Your task to perform on an android device: set the stopwatch Image 0: 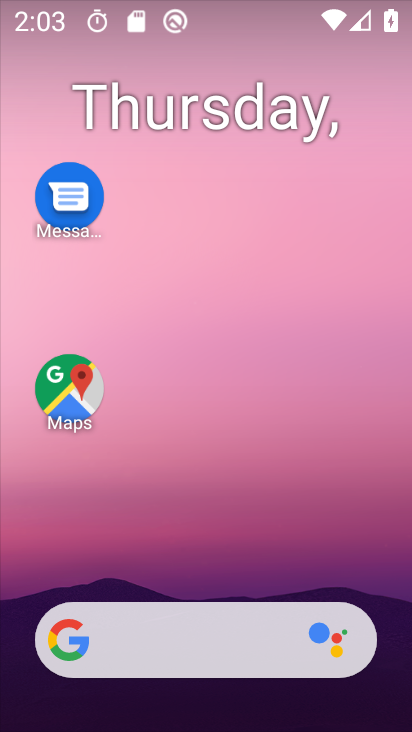
Step 0: drag from (153, 500) to (218, 189)
Your task to perform on an android device: set the stopwatch Image 1: 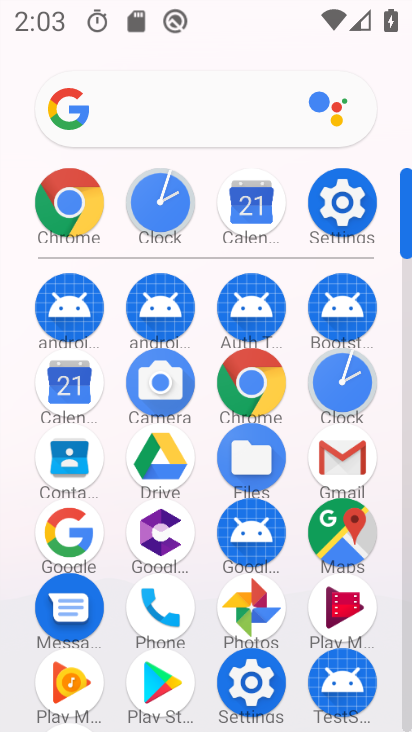
Step 1: click (334, 205)
Your task to perform on an android device: set the stopwatch Image 2: 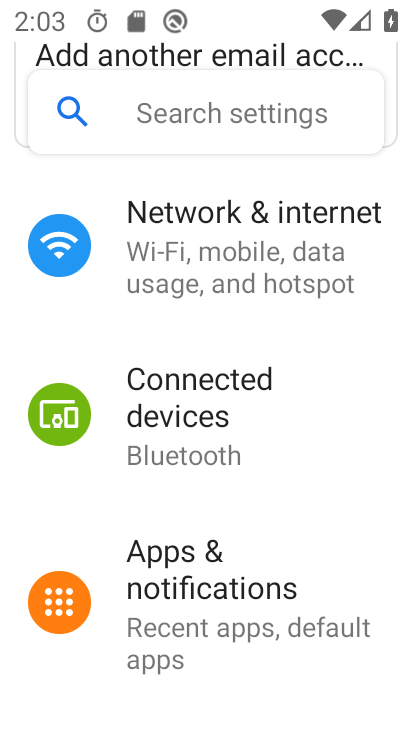
Step 2: press home button
Your task to perform on an android device: set the stopwatch Image 3: 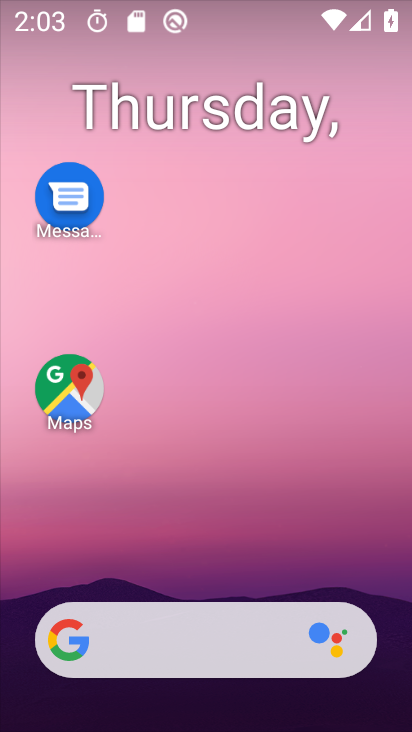
Step 3: drag from (225, 570) to (271, 156)
Your task to perform on an android device: set the stopwatch Image 4: 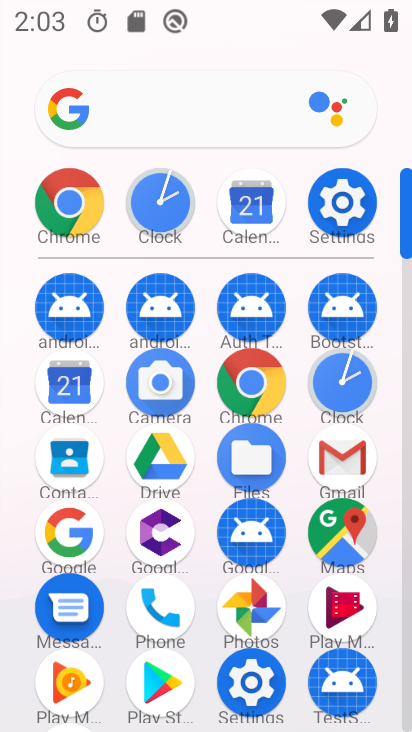
Step 4: click (340, 385)
Your task to perform on an android device: set the stopwatch Image 5: 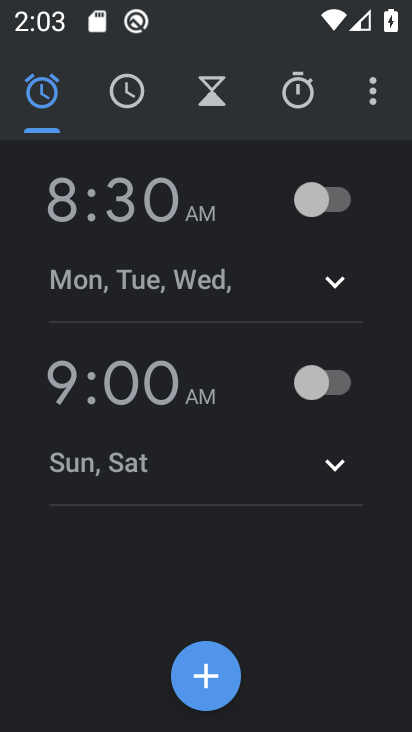
Step 5: click (314, 94)
Your task to perform on an android device: set the stopwatch Image 6: 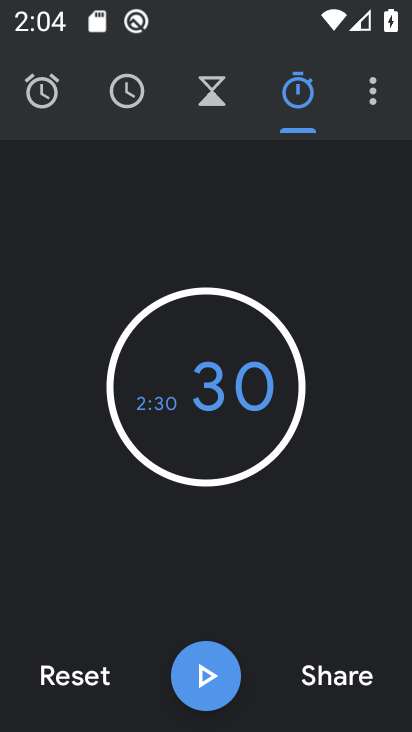
Step 6: task complete